Your task to perform on an android device: add a contact Image 0: 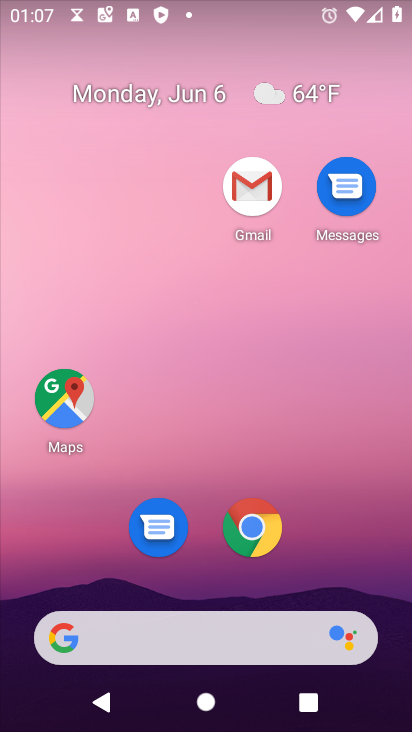
Step 0: drag from (329, 500) to (266, 12)
Your task to perform on an android device: add a contact Image 1: 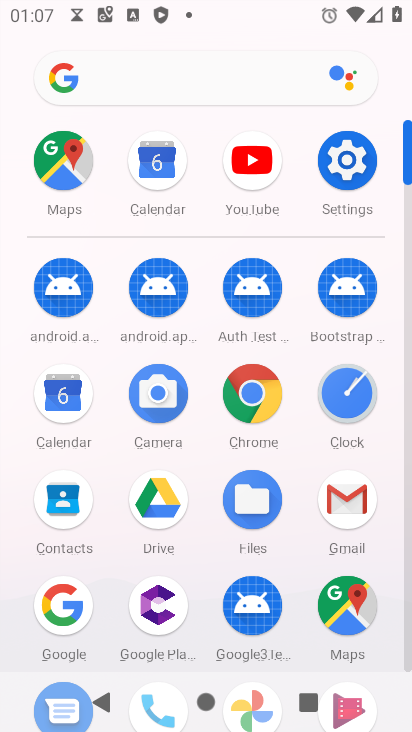
Step 1: click (70, 525)
Your task to perform on an android device: add a contact Image 2: 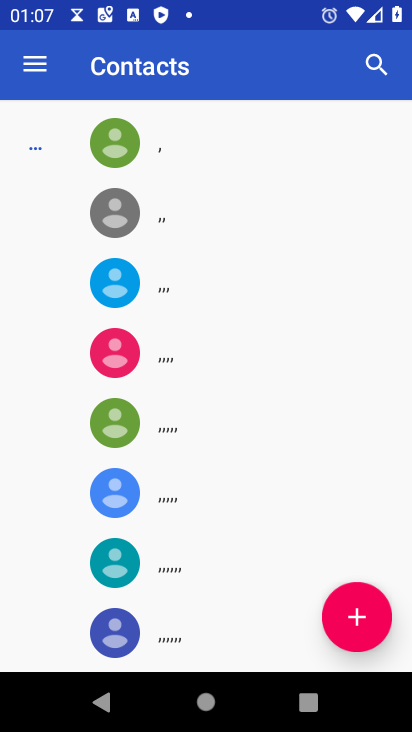
Step 2: click (358, 615)
Your task to perform on an android device: add a contact Image 3: 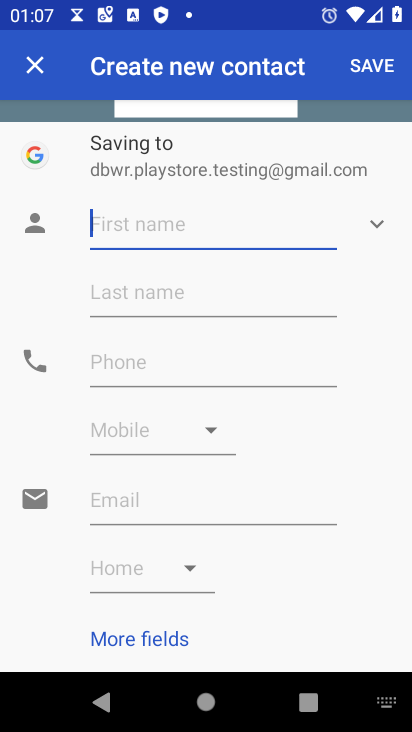
Step 3: type "sshg"
Your task to perform on an android device: add a contact Image 4: 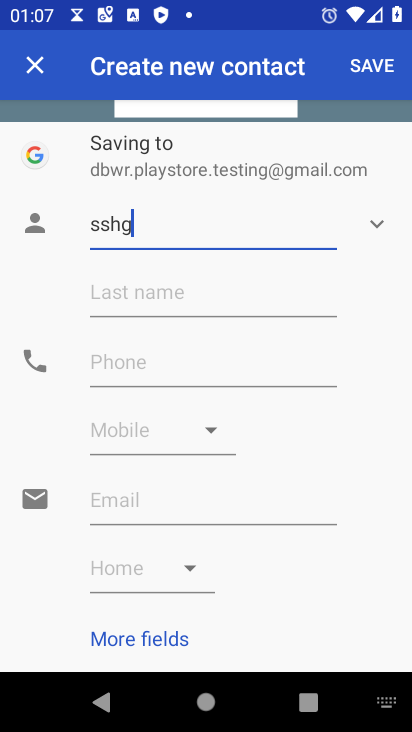
Step 4: click (217, 363)
Your task to perform on an android device: add a contact Image 5: 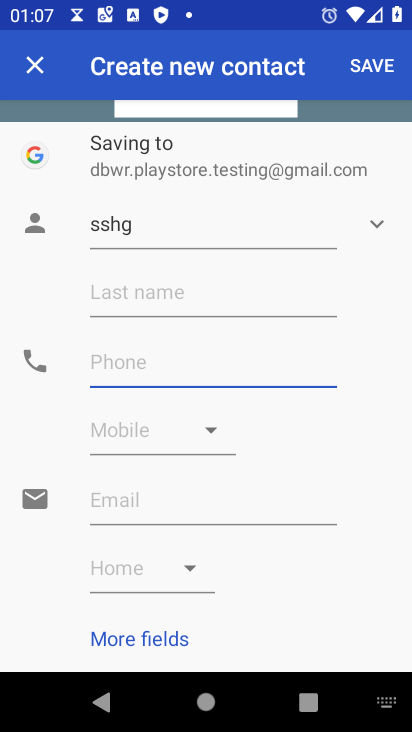
Step 5: type "50896104557"
Your task to perform on an android device: add a contact Image 6: 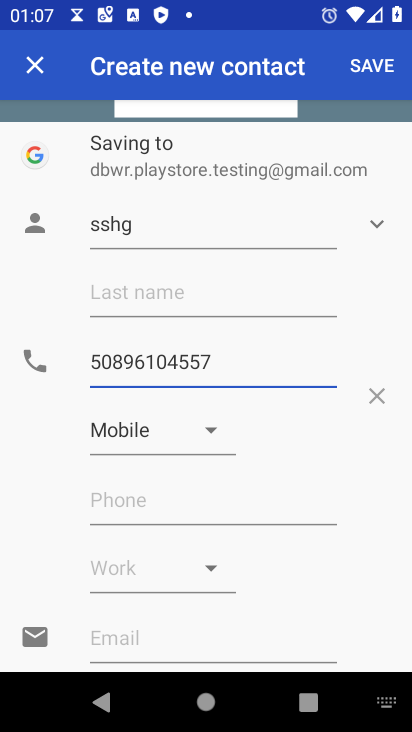
Step 6: click (374, 63)
Your task to perform on an android device: add a contact Image 7: 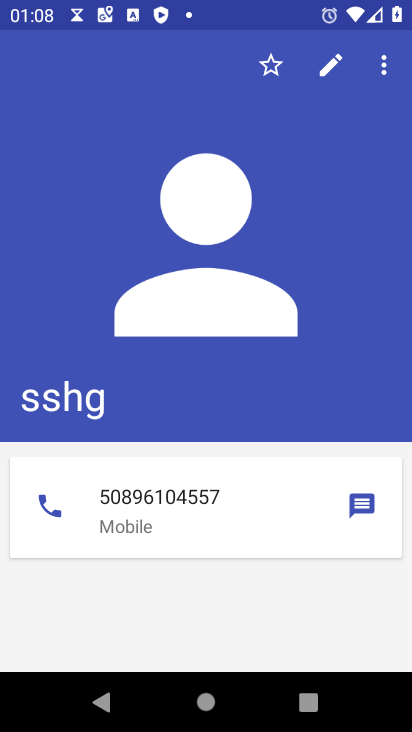
Step 7: task complete